Your task to perform on an android device: delete location history Image 0: 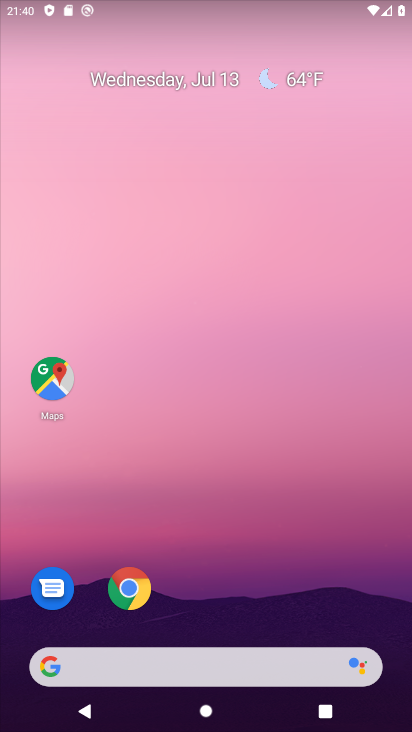
Step 0: click (38, 369)
Your task to perform on an android device: delete location history Image 1: 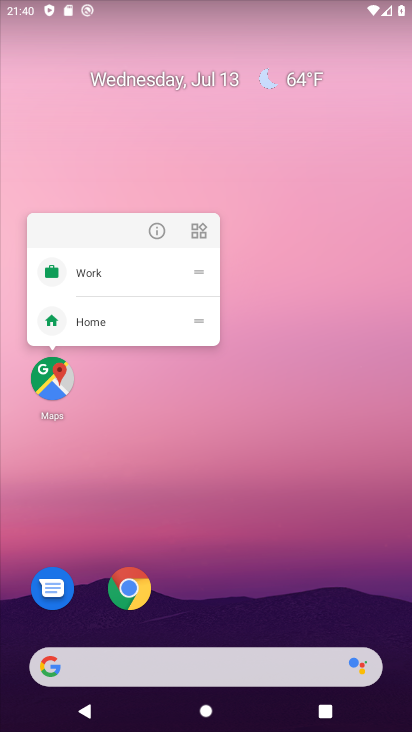
Step 1: click (48, 369)
Your task to perform on an android device: delete location history Image 2: 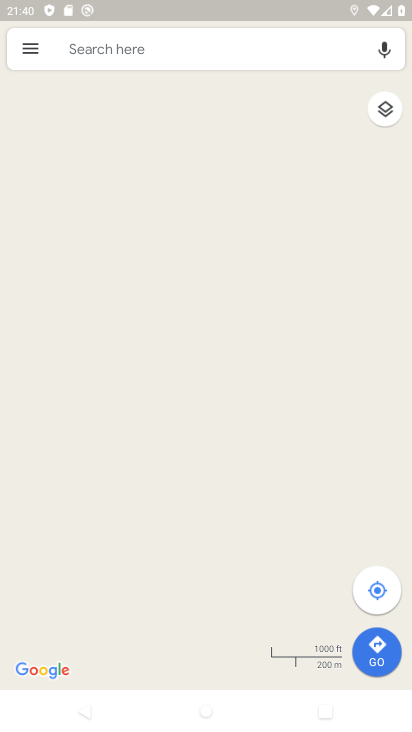
Step 2: click (29, 48)
Your task to perform on an android device: delete location history Image 3: 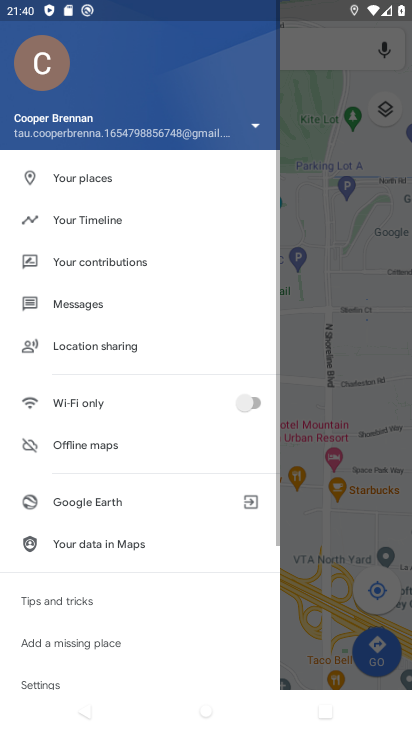
Step 3: click (140, 215)
Your task to perform on an android device: delete location history Image 4: 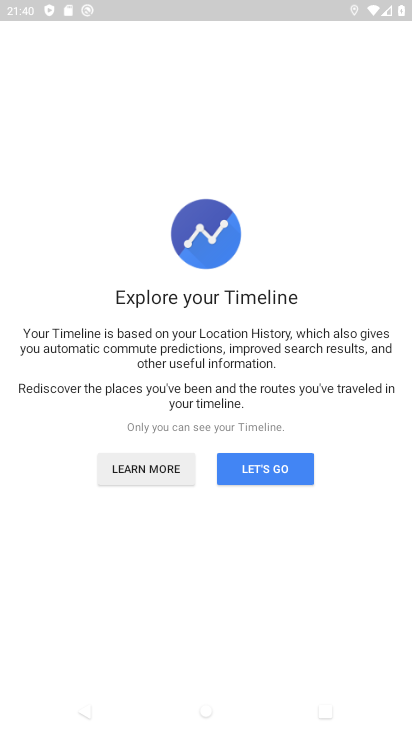
Step 4: click (264, 472)
Your task to perform on an android device: delete location history Image 5: 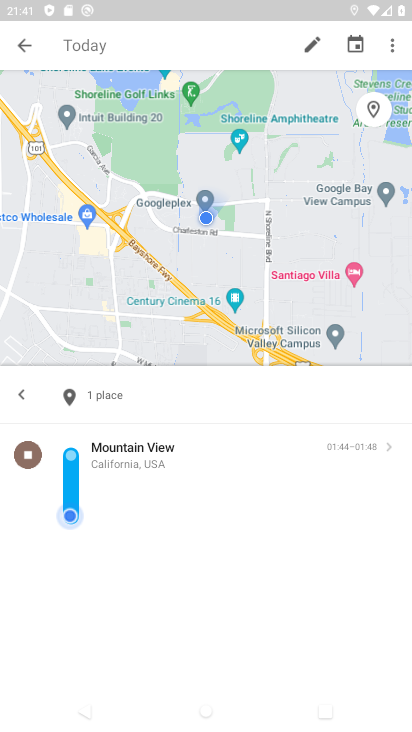
Step 5: click (393, 51)
Your task to perform on an android device: delete location history Image 6: 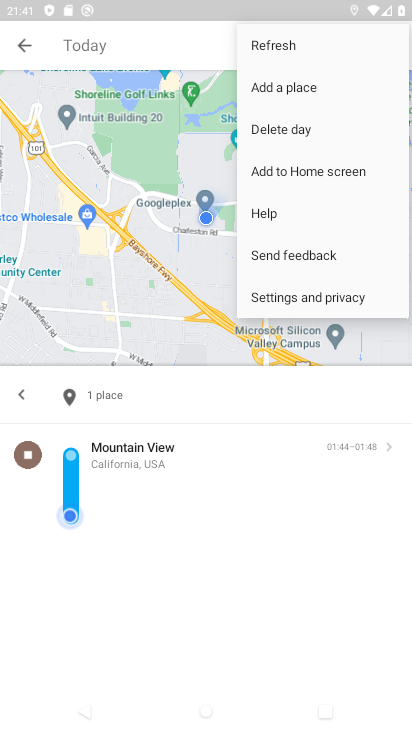
Step 6: click (298, 302)
Your task to perform on an android device: delete location history Image 7: 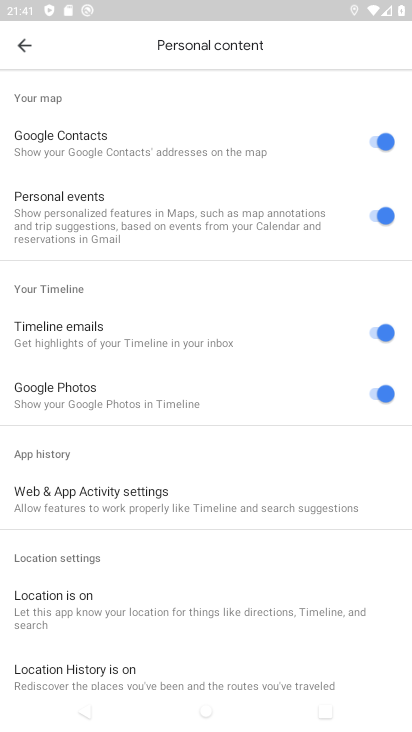
Step 7: drag from (117, 684) to (177, 104)
Your task to perform on an android device: delete location history Image 8: 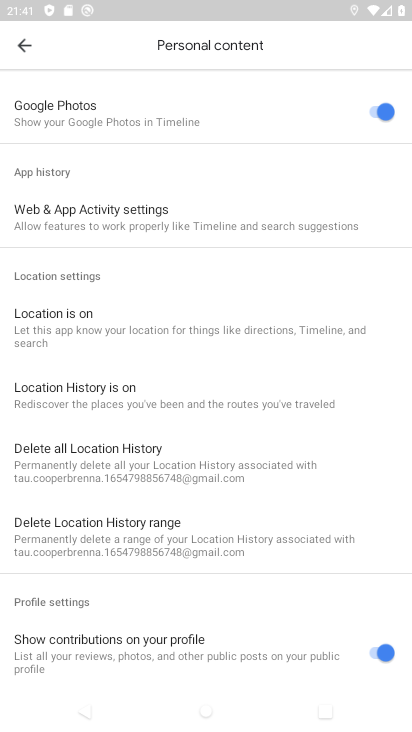
Step 8: click (133, 541)
Your task to perform on an android device: delete location history Image 9: 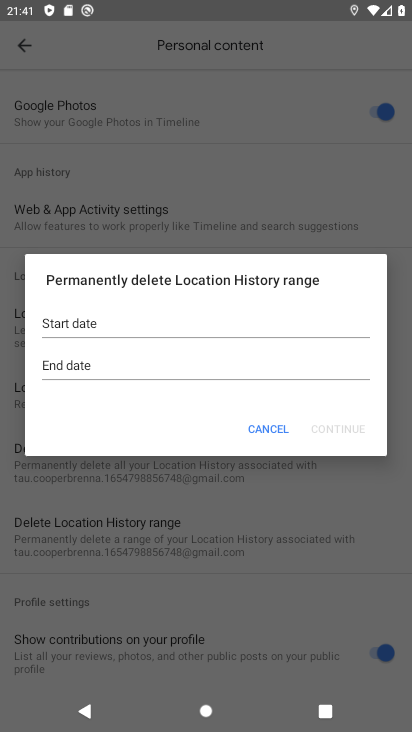
Step 9: click (252, 440)
Your task to perform on an android device: delete location history Image 10: 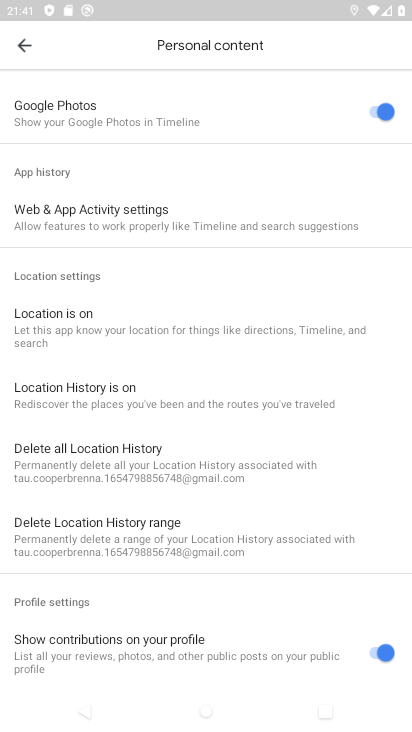
Step 10: click (120, 437)
Your task to perform on an android device: delete location history Image 11: 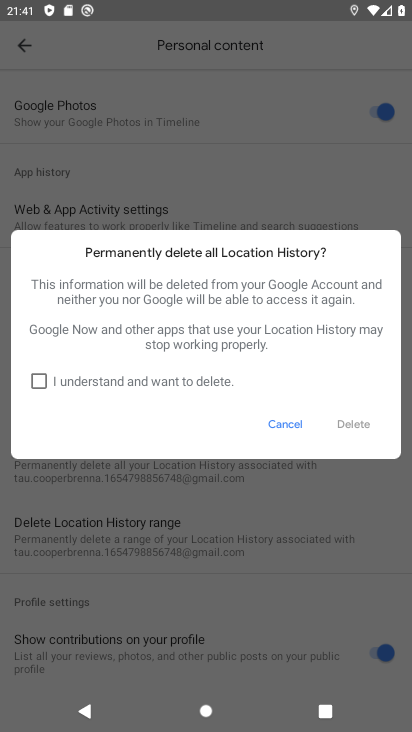
Step 11: click (46, 384)
Your task to perform on an android device: delete location history Image 12: 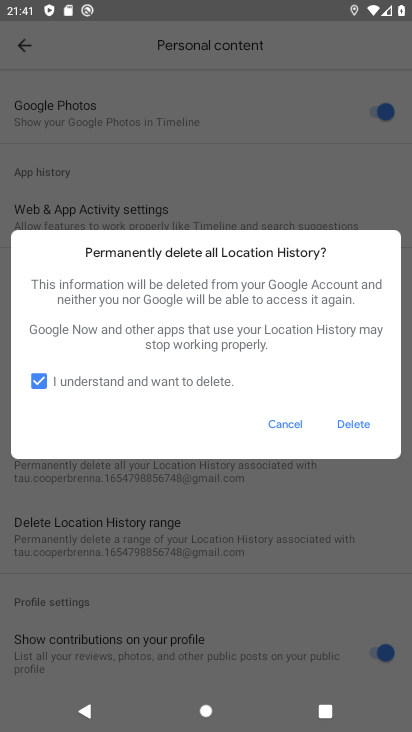
Step 12: click (347, 423)
Your task to perform on an android device: delete location history Image 13: 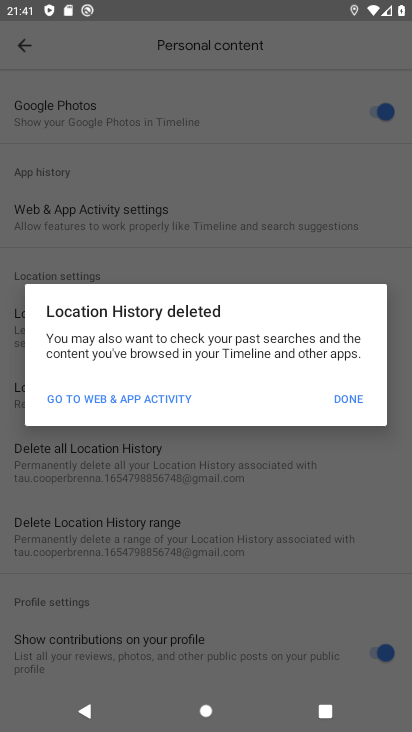
Step 13: click (337, 405)
Your task to perform on an android device: delete location history Image 14: 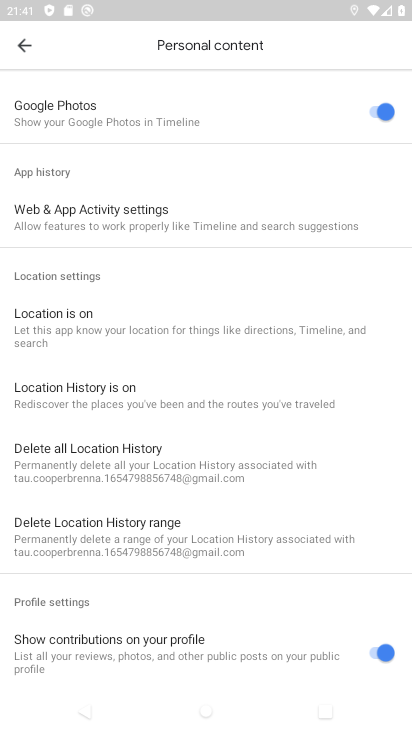
Step 14: task complete